Your task to perform on an android device: turn on data saver in the chrome app Image 0: 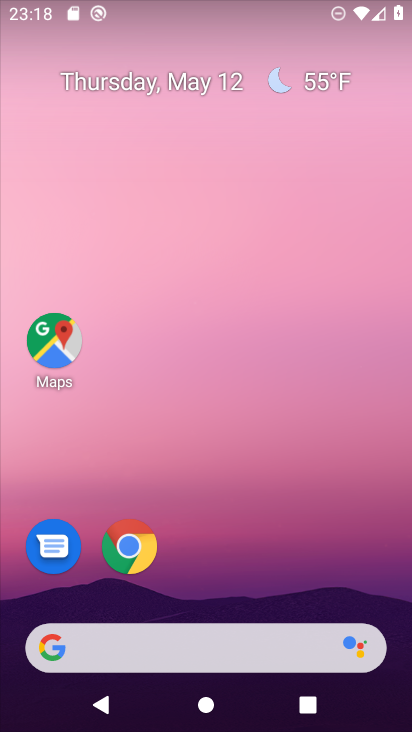
Step 0: click (127, 545)
Your task to perform on an android device: turn on data saver in the chrome app Image 1: 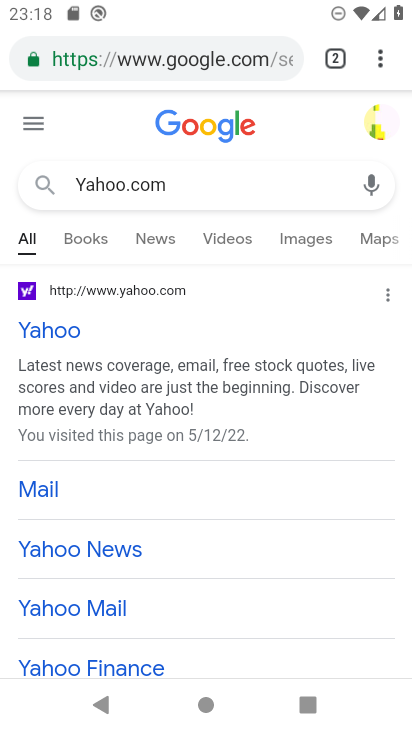
Step 1: click (382, 56)
Your task to perform on an android device: turn on data saver in the chrome app Image 2: 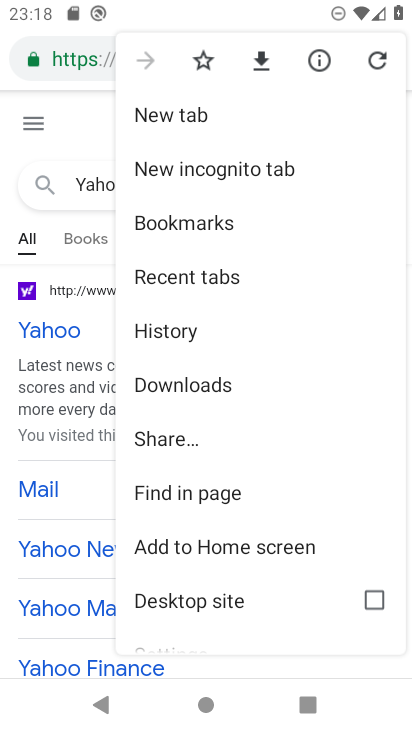
Step 2: drag from (200, 446) to (229, 100)
Your task to perform on an android device: turn on data saver in the chrome app Image 3: 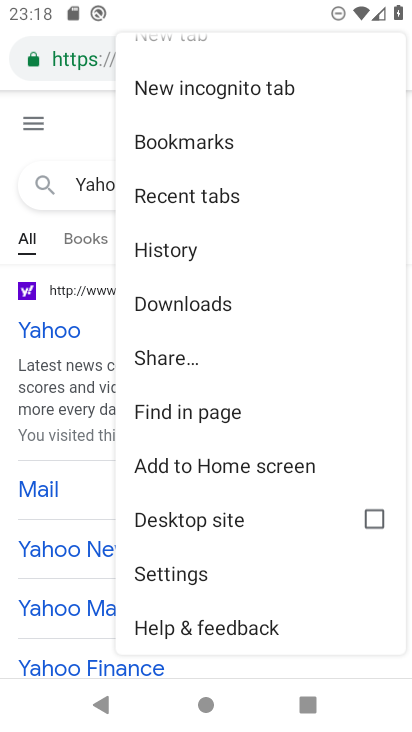
Step 3: click (184, 583)
Your task to perform on an android device: turn on data saver in the chrome app Image 4: 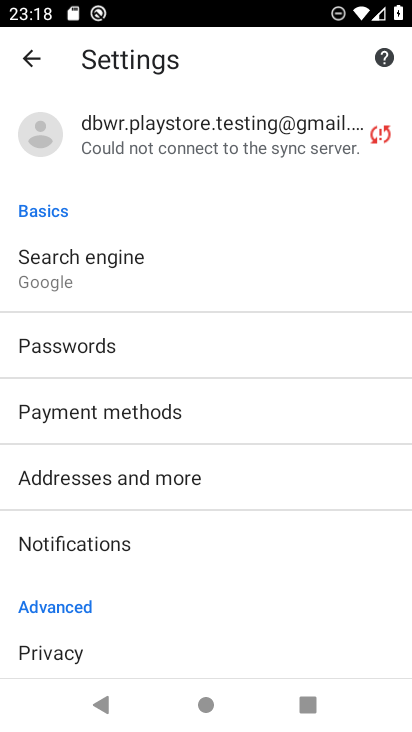
Step 4: drag from (148, 594) to (138, 164)
Your task to perform on an android device: turn on data saver in the chrome app Image 5: 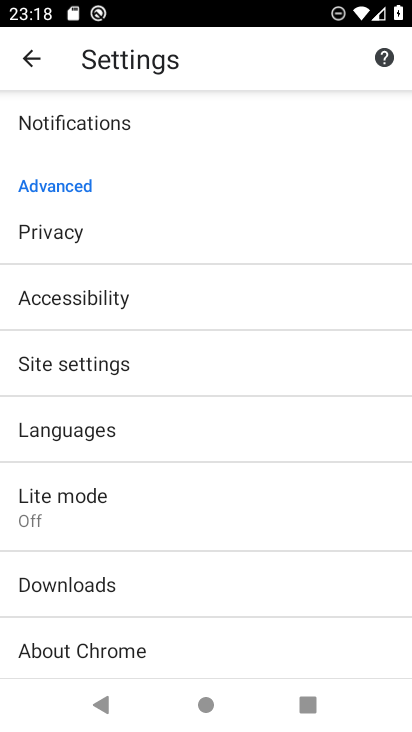
Step 5: click (61, 490)
Your task to perform on an android device: turn on data saver in the chrome app Image 6: 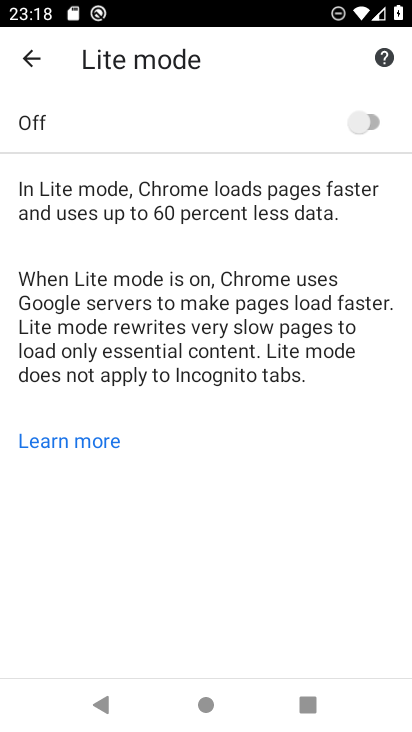
Step 6: click (364, 129)
Your task to perform on an android device: turn on data saver in the chrome app Image 7: 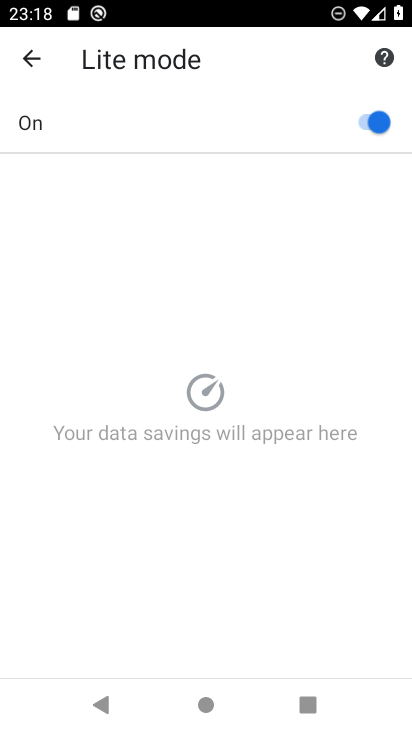
Step 7: task complete